Your task to perform on an android device: Open battery settings Image 0: 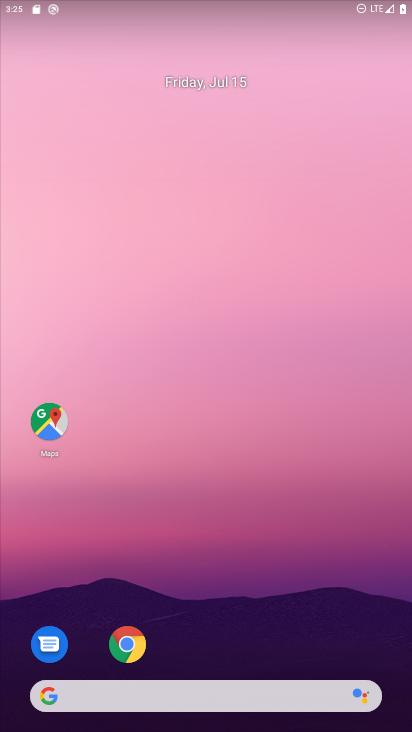
Step 0: drag from (8, 709) to (191, 288)
Your task to perform on an android device: Open battery settings Image 1: 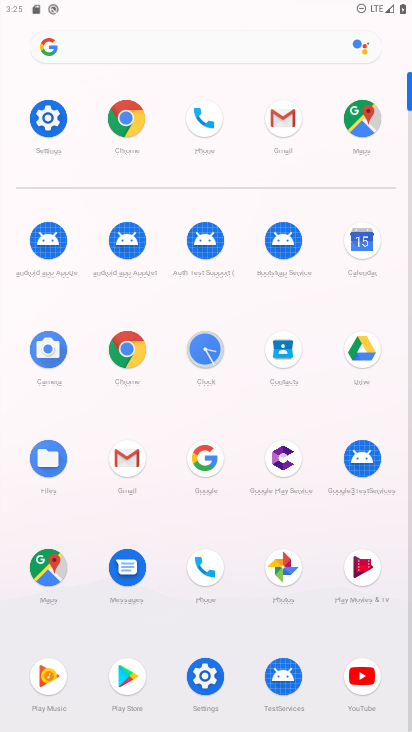
Step 1: click (55, 116)
Your task to perform on an android device: Open battery settings Image 2: 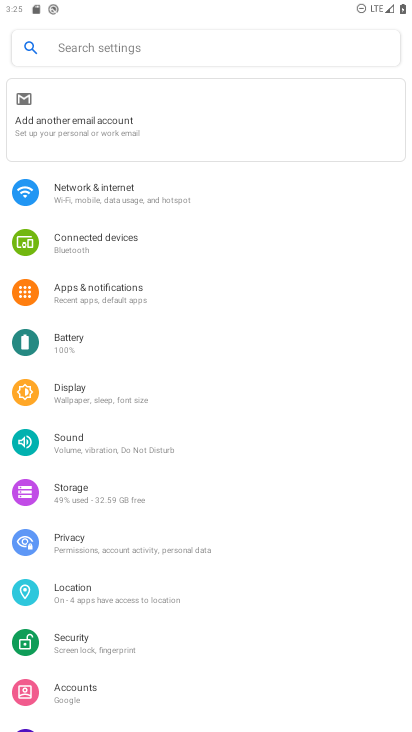
Step 2: click (105, 339)
Your task to perform on an android device: Open battery settings Image 3: 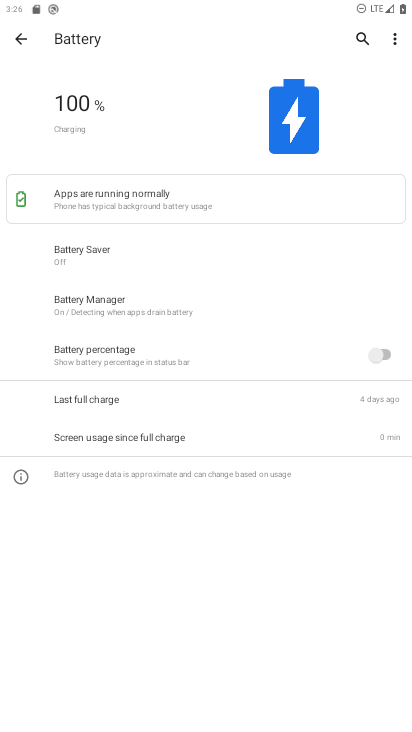
Step 3: task complete